Your task to perform on an android device: Turn on the flashlight Image 0: 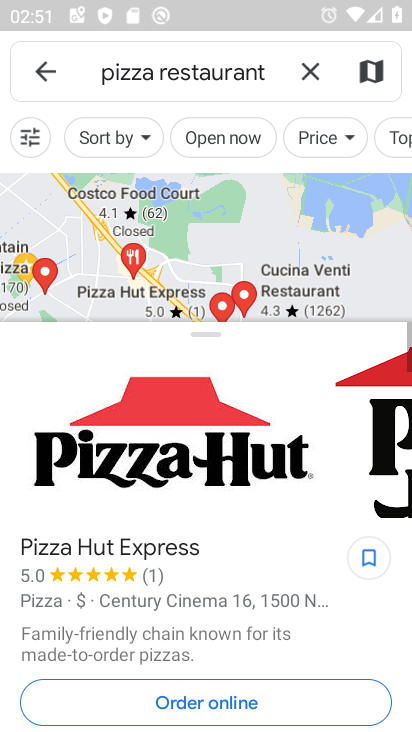
Step 0: press home button
Your task to perform on an android device: Turn on the flashlight Image 1: 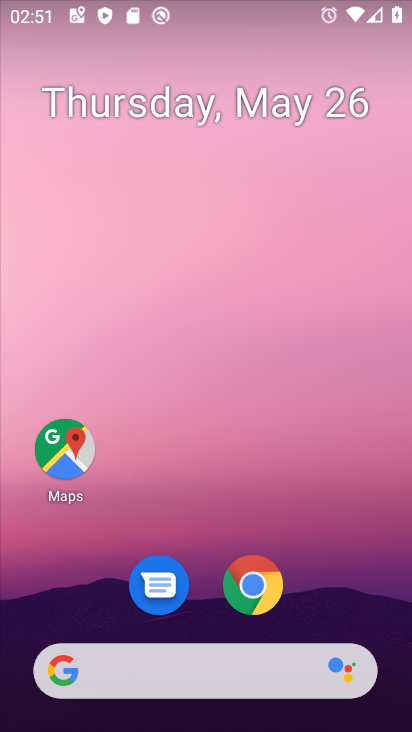
Step 1: drag from (223, 481) to (257, 56)
Your task to perform on an android device: Turn on the flashlight Image 2: 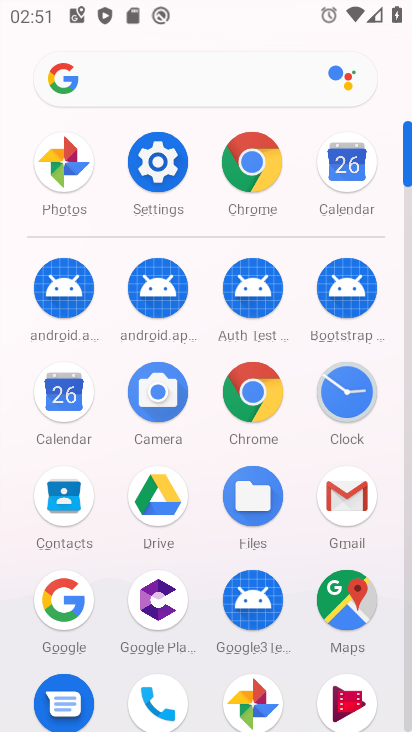
Step 2: click (172, 155)
Your task to perform on an android device: Turn on the flashlight Image 3: 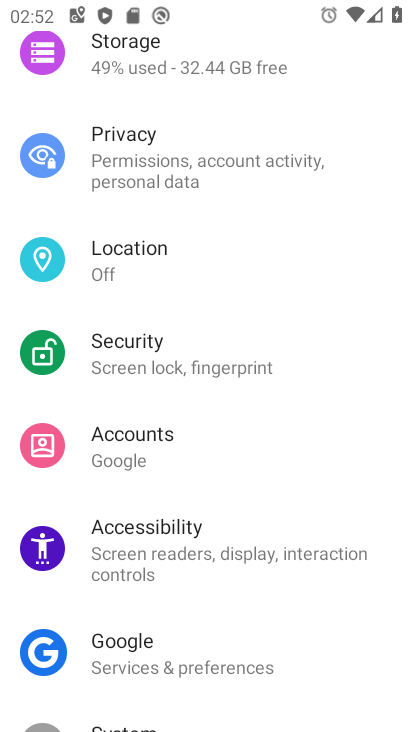
Step 3: drag from (214, 194) to (295, 729)
Your task to perform on an android device: Turn on the flashlight Image 4: 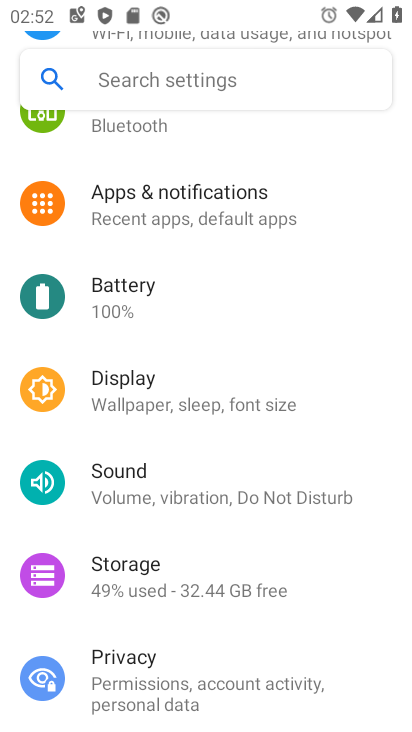
Step 4: drag from (252, 340) to (295, 670)
Your task to perform on an android device: Turn on the flashlight Image 5: 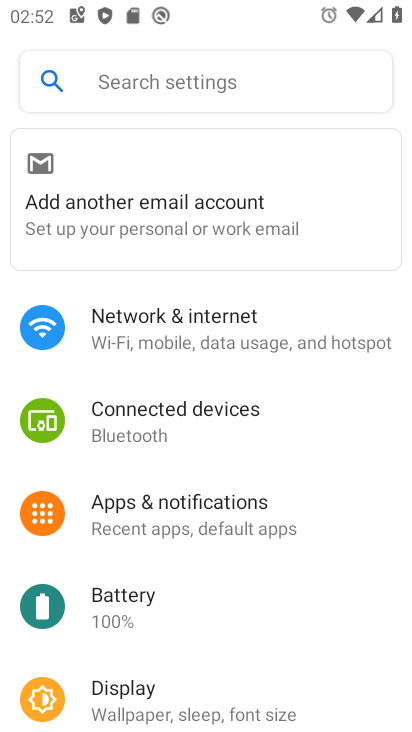
Step 5: click (261, 73)
Your task to perform on an android device: Turn on the flashlight Image 6: 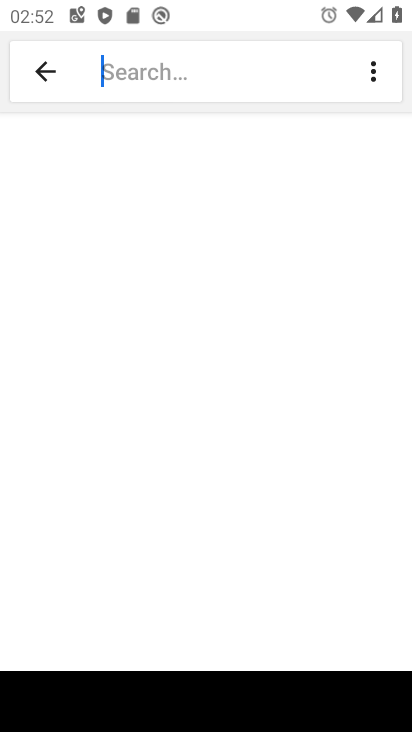
Step 6: type "Flashlight"
Your task to perform on an android device: Turn on the flashlight Image 7: 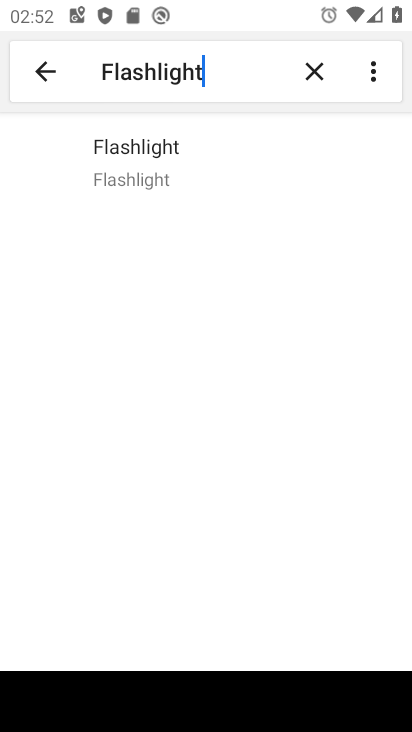
Step 7: task complete